Your task to perform on an android device: What's the weather? Image 0: 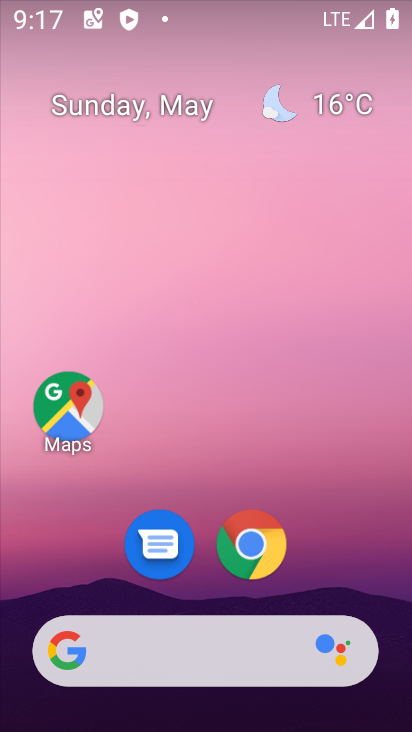
Step 0: drag from (295, 581) to (272, 179)
Your task to perform on an android device: What's the weather? Image 1: 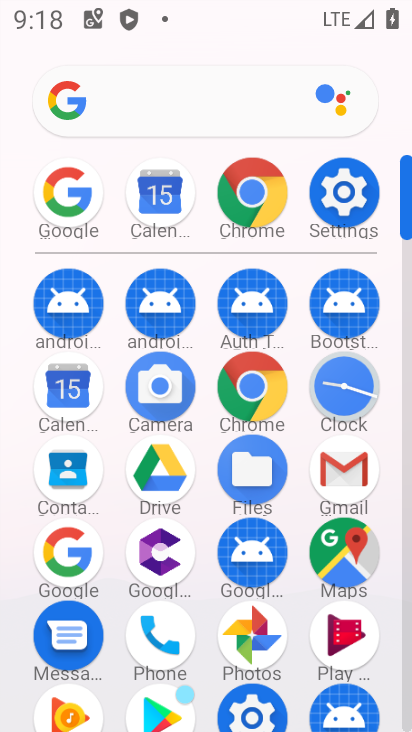
Step 1: click (55, 558)
Your task to perform on an android device: What's the weather? Image 2: 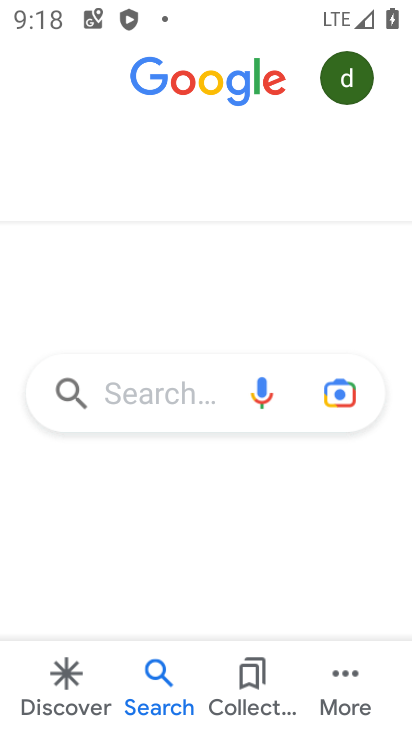
Step 2: click (160, 398)
Your task to perform on an android device: What's the weather? Image 3: 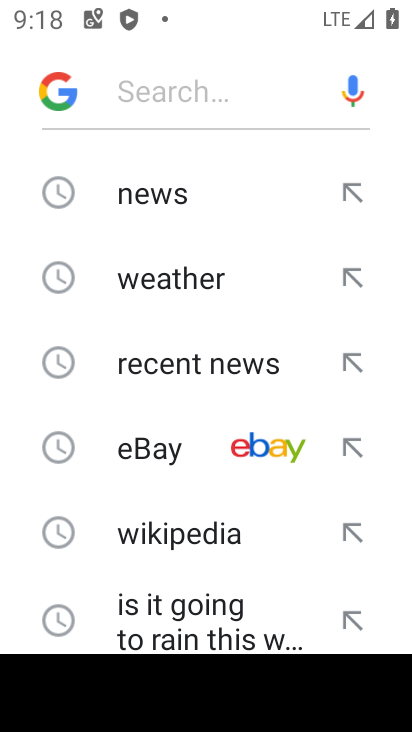
Step 3: click (166, 285)
Your task to perform on an android device: What's the weather? Image 4: 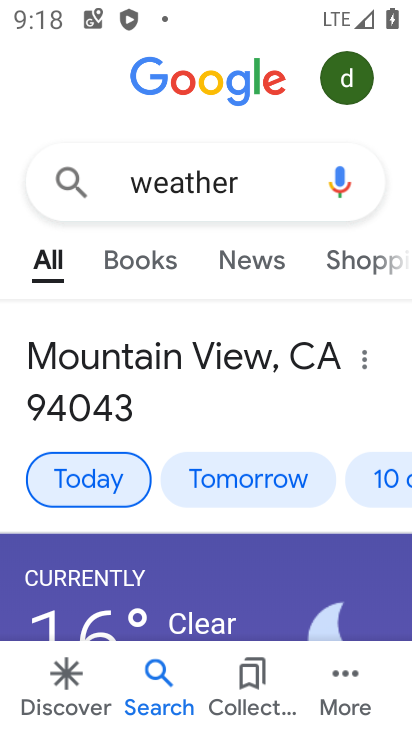
Step 4: task complete